Your task to perform on an android device: Open Youtube and go to "Your channel" Image 0: 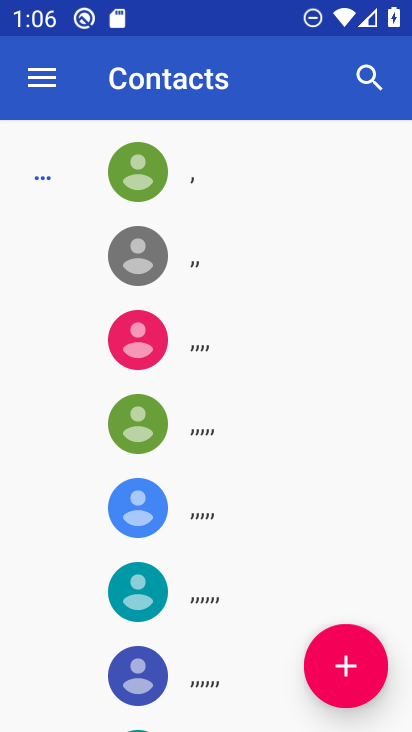
Step 0: press home button
Your task to perform on an android device: Open Youtube and go to "Your channel" Image 1: 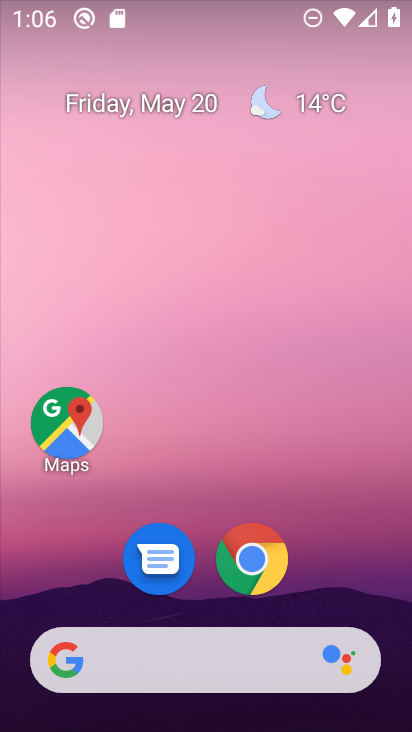
Step 1: drag from (347, 566) to (326, 84)
Your task to perform on an android device: Open Youtube and go to "Your channel" Image 2: 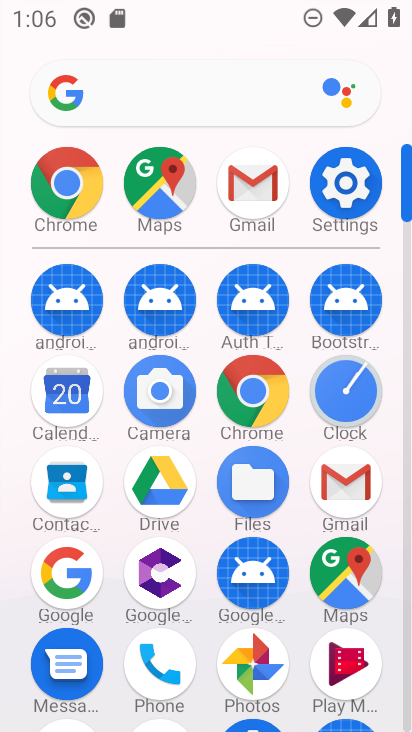
Step 2: click (406, 702)
Your task to perform on an android device: Open Youtube and go to "Your channel" Image 3: 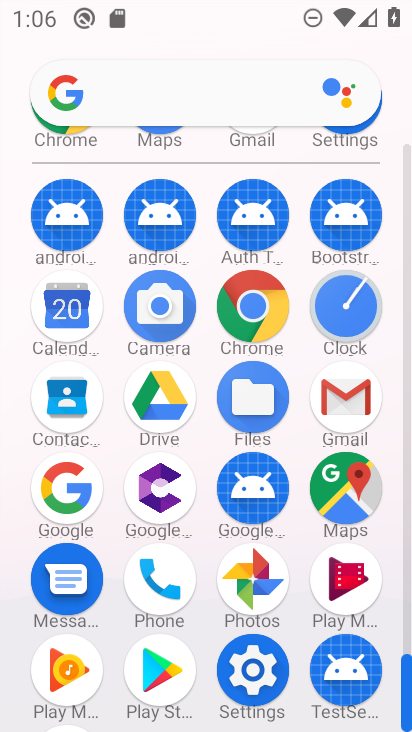
Step 3: click (407, 716)
Your task to perform on an android device: Open Youtube and go to "Your channel" Image 4: 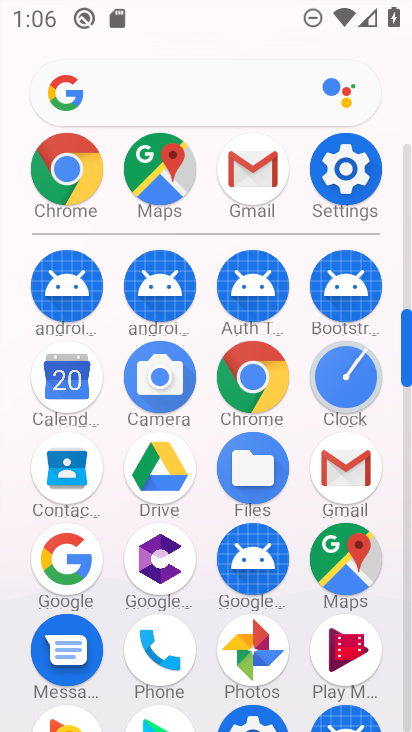
Step 4: click (405, 646)
Your task to perform on an android device: Open Youtube and go to "Your channel" Image 5: 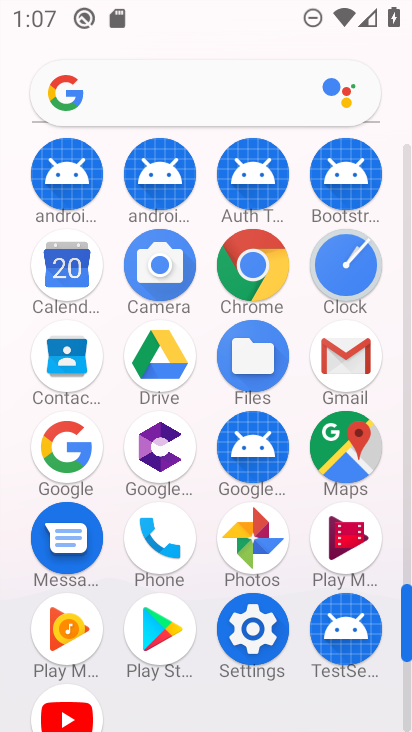
Step 5: click (71, 700)
Your task to perform on an android device: Open Youtube and go to "Your channel" Image 6: 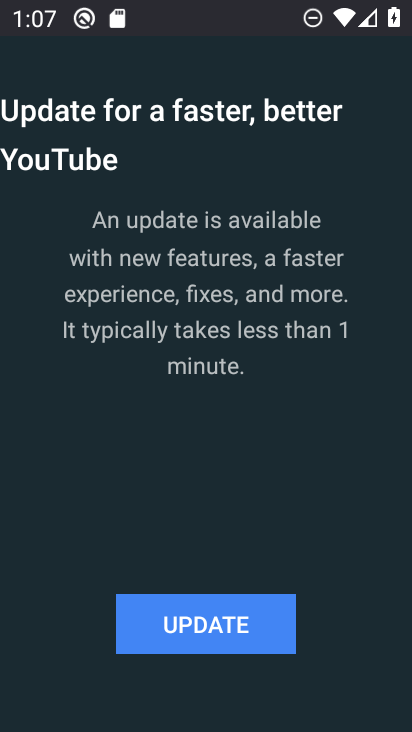
Step 6: click (132, 614)
Your task to perform on an android device: Open Youtube and go to "Your channel" Image 7: 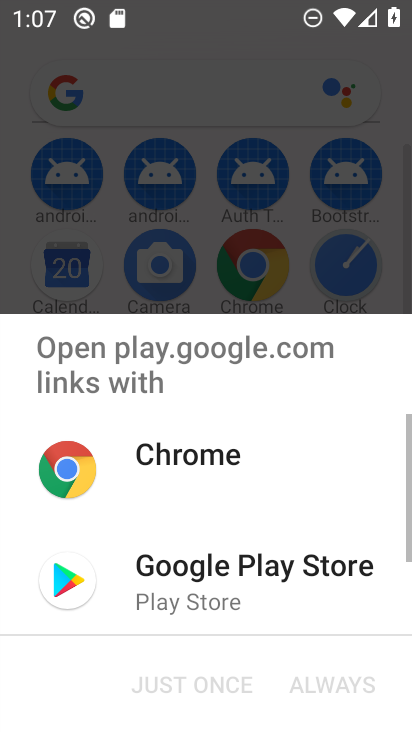
Step 7: click (135, 599)
Your task to perform on an android device: Open Youtube and go to "Your channel" Image 8: 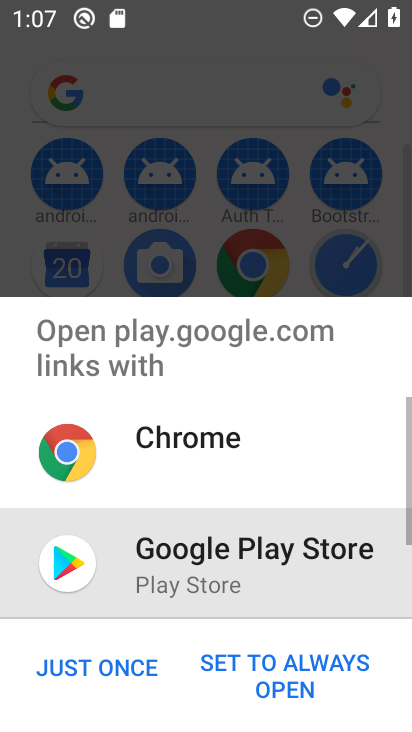
Step 8: click (231, 698)
Your task to perform on an android device: Open Youtube and go to "Your channel" Image 9: 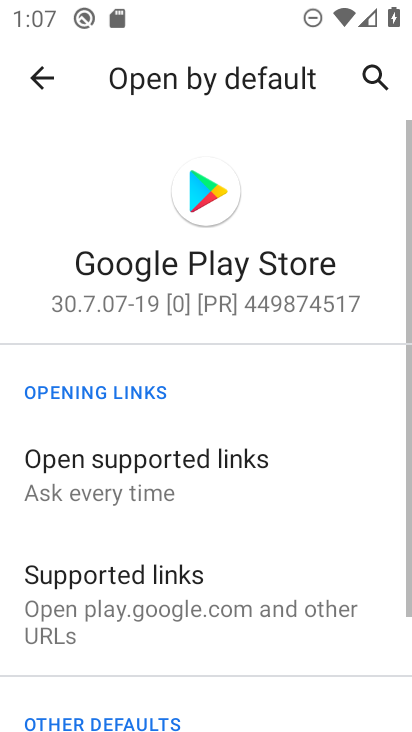
Step 9: click (64, 687)
Your task to perform on an android device: Open Youtube and go to "Your channel" Image 10: 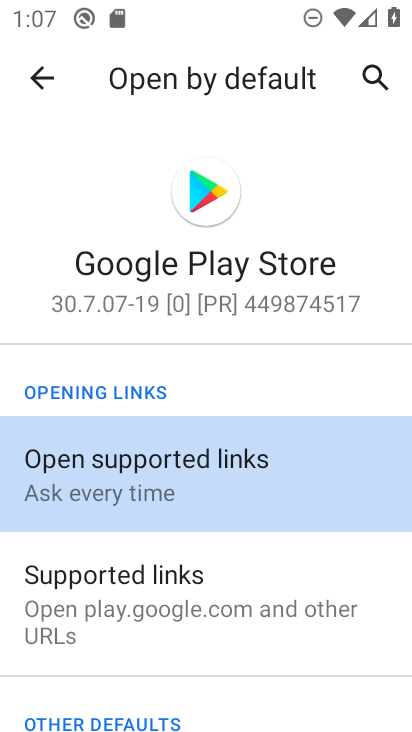
Step 10: click (45, 79)
Your task to perform on an android device: Open Youtube and go to "Your channel" Image 11: 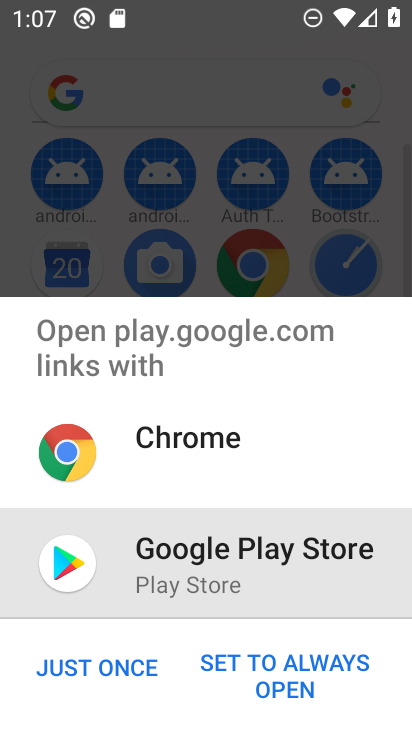
Step 11: click (75, 660)
Your task to perform on an android device: Open Youtube and go to "Your channel" Image 12: 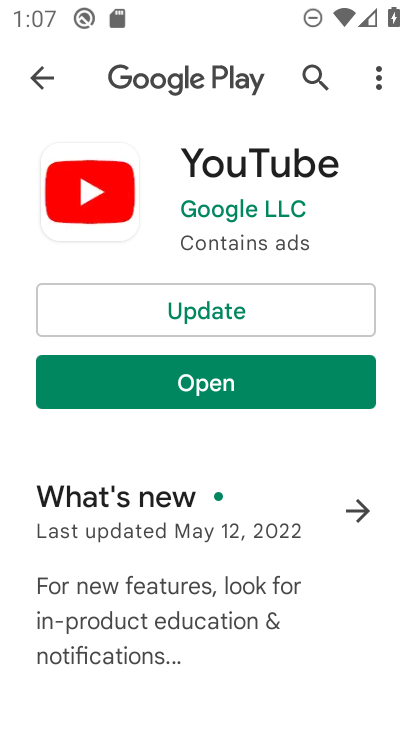
Step 12: click (186, 306)
Your task to perform on an android device: Open Youtube and go to "Your channel" Image 13: 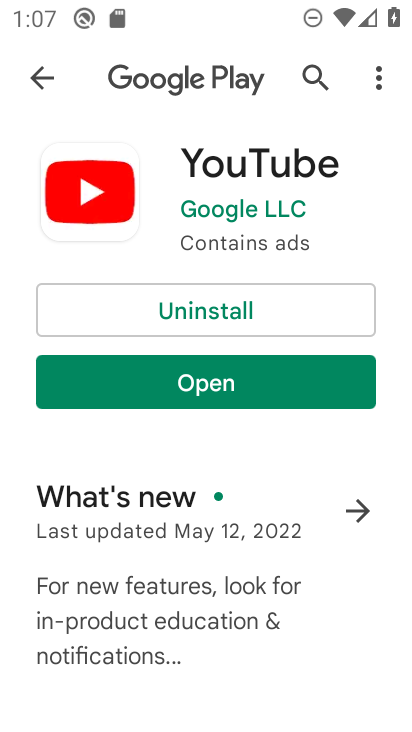
Step 13: click (220, 376)
Your task to perform on an android device: Open Youtube and go to "Your channel" Image 14: 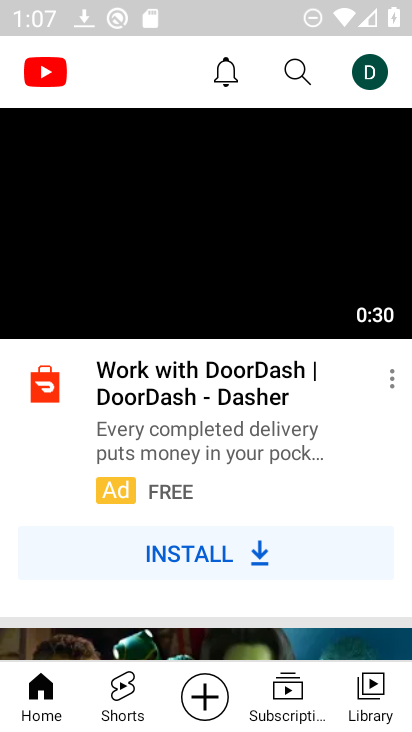
Step 14: click (377, 80)
Your task to perform on an android device: Open Youtube and go to "Your channel" Image 15: 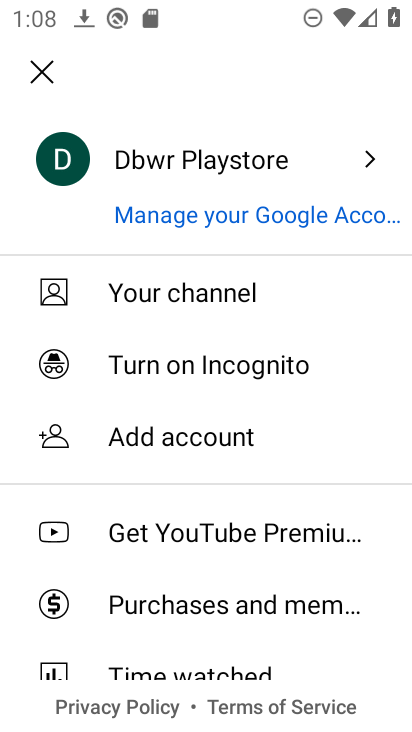
Step 15: click (263, 311)
Your task to perform on an android device: Open Youtube and go to "Your channel" Image 16: 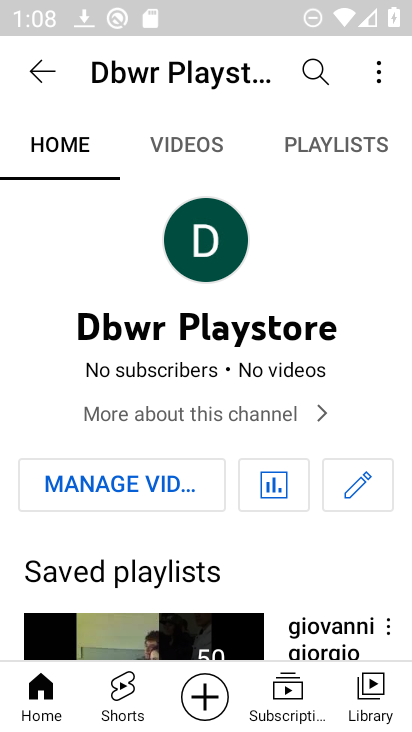
Step 16: task complete